Your task to perform on an android device: Add usb-c to the cart on amazon.com Image 0: 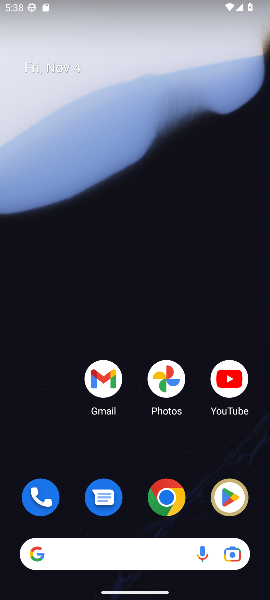
Step 0: click (166, 494)
Your task to perform on an android device: Add usb-c to the cart on amazon.com Image 1: 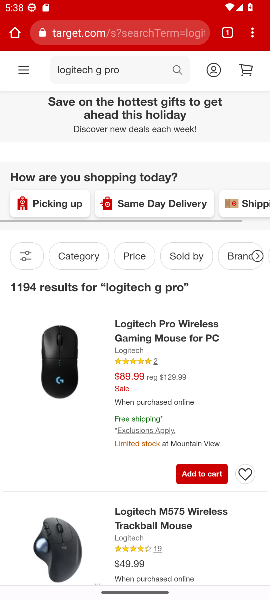
Step 1: click (113, 32)
Your task to perform on an android device: Add usb-c to the cart on amazon.com Image 2: 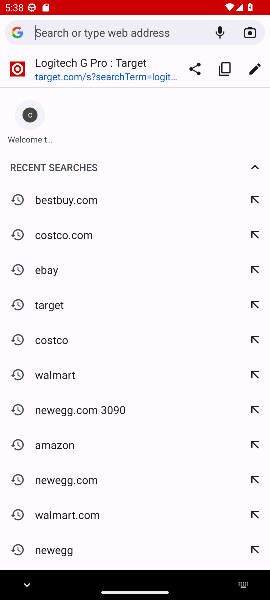
Step 2: click (55, 446)
Your task to perform on an android device: Add usb-c to the cart on amazon.com Image 3: 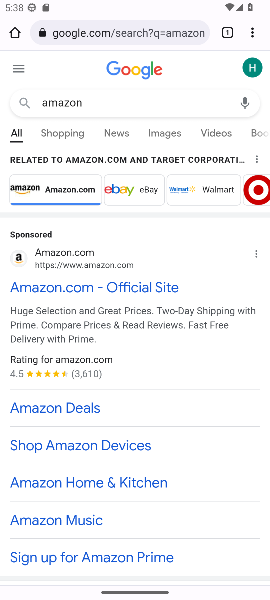
Step 3: drag from (78, 286) to (84, 144)
Your task to perform on an android device: Add usb-c to the cart on amazon.com Image 4: 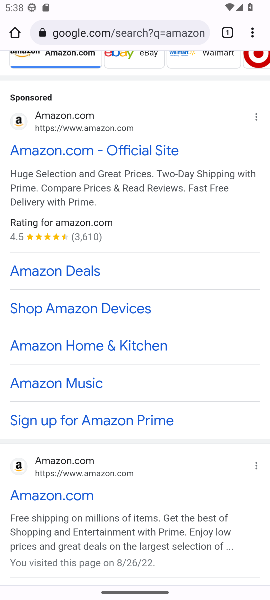
Step 4: click (69, 481)
Your task to perform on an android device: Add usb-c to the cart on amazon.com Image 5: 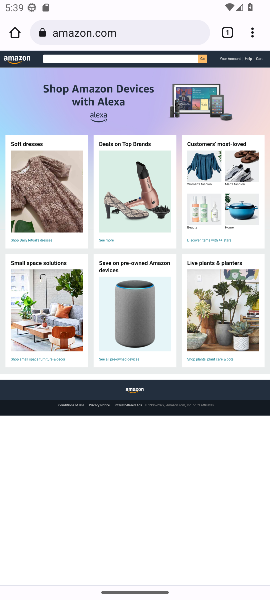
Step 5: click (104, 67)
Your task to perform on an android device: Add usb-c to the cart on amazon.com Image 6: 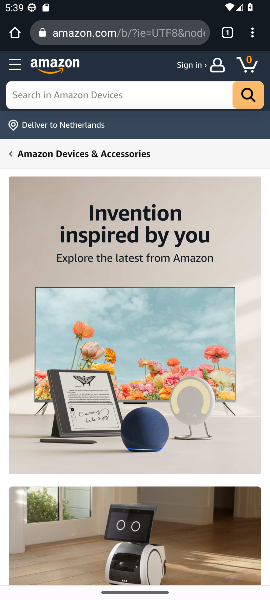
Step 6: click (93, 89)
Your task to perform on an android device: Add usb-c to the cart on amazon.com Image 7: 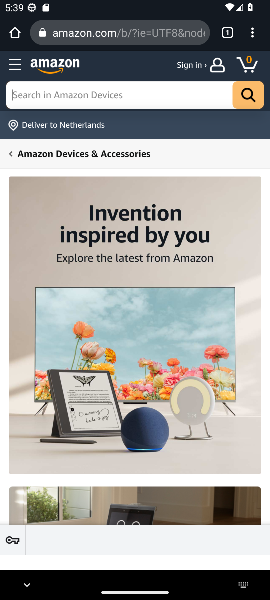
Step 7: type "usb-c "
Your task to perform on an android device: Add usb-c to the cart on amazon.com Image 8: 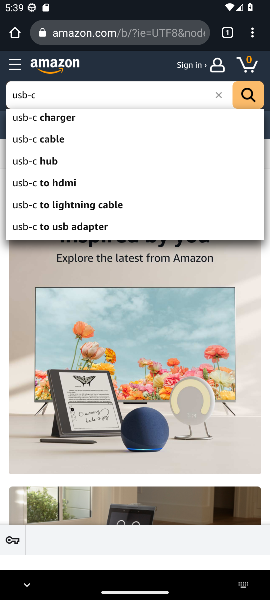
Step 8: click (246, 99)
Your task to perform on an android device: Add usb-c to the cart on amazon.com Image 9: 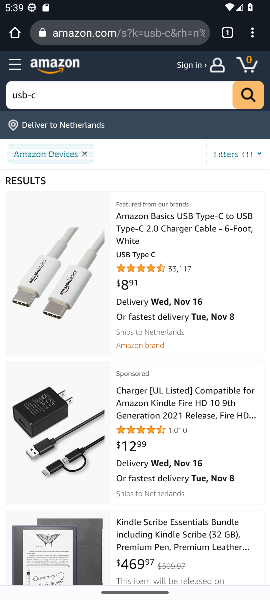
Step 9: click (80, 282)
Your task to perform on an android device: Add usb-c to the cart on amazon.com Image 10: 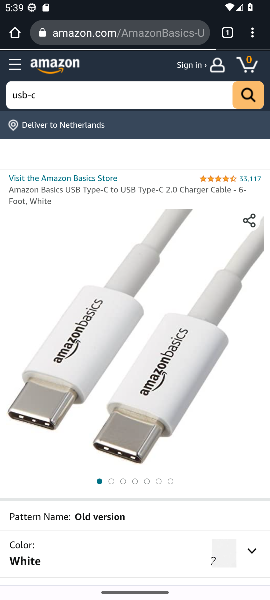
Step 10: drag from (179, 421) to (179, 184)
Your task to perform on an android device: Add usb-c to the cart on amazon.com Image 11: 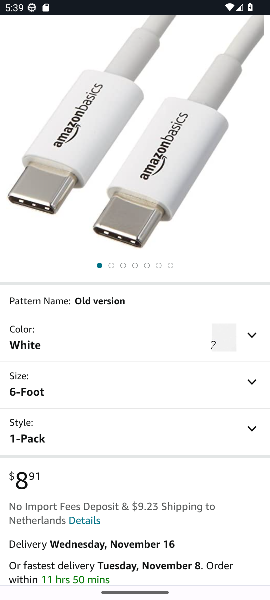
Step 11: drag from (148, 245) to (158, 126)
Your task to perform on an android device: Add usb-c to the cart on amazon.com Image 12: 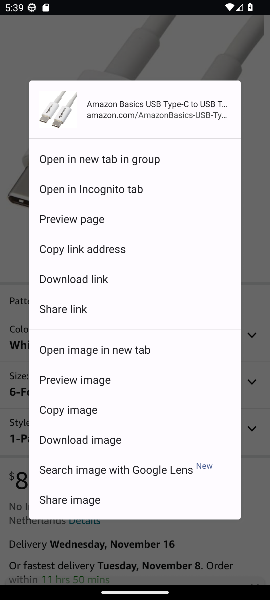
Step 12: click (5, 336)
Your task to perform on an android device: Add usb-c to the cart on amazon.com Image 13: 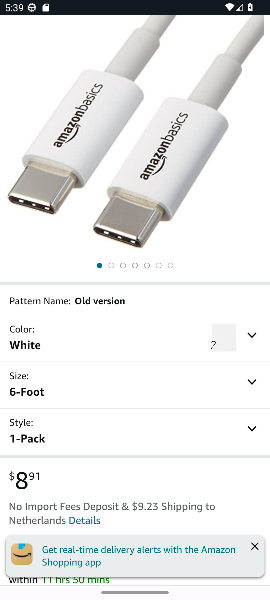
Step 13: drag from (130, 473) to (135, 216)
Your task to perform on an android device: Add usb-c to the cart on amazon.com Image 14: 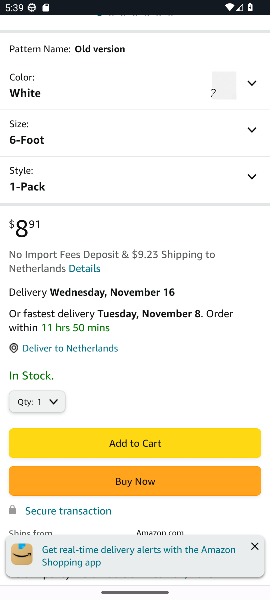
Step 14: click (126, 443)
Your task to perform on an android device: Add usb-c to the cart on amazon.com Image 15: 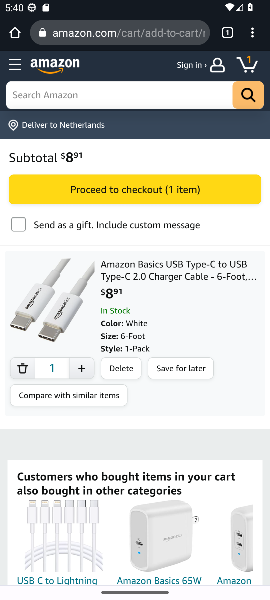
Step 15: task complete